Your task to perform on an android device: open sync settings in chrome Image 0: 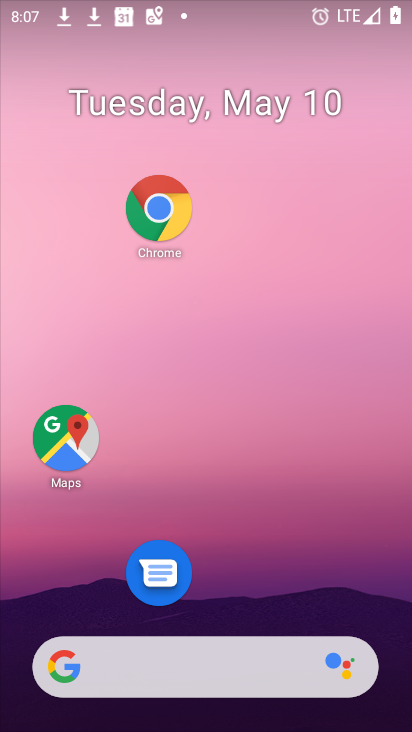
Step 0: drag from (318, 684) to (358, 213)
Your task to perform on an android device: open sync settings in chrome Image 1: 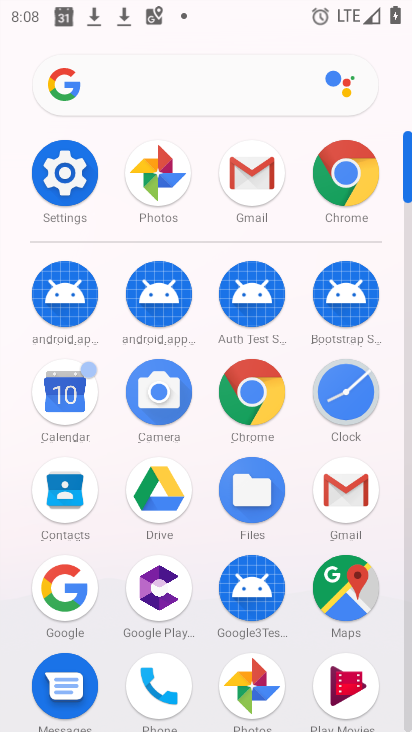
Step 1: click (347, 170)
Your task to perform on an android device: open sync settings in chrome Image 2: 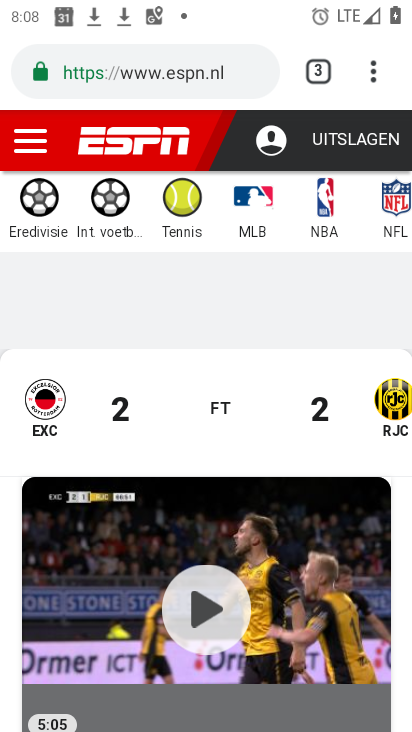
Step 2: click (366, 91)
Your task to perform on an android device: open sync settings in chrome Image 3: 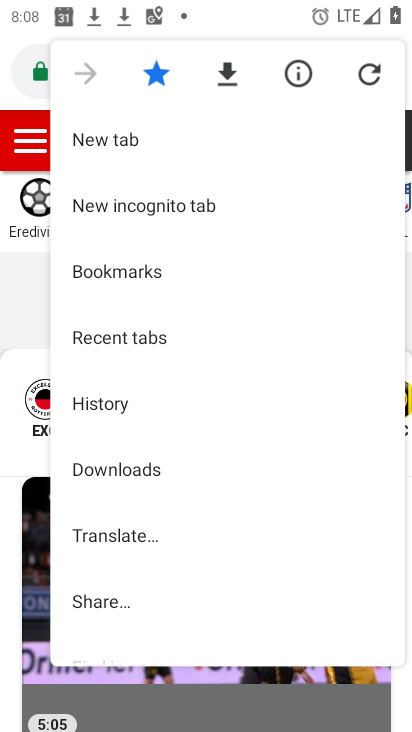
Step 3: drag from (175, 572) to (253, 357)
Your task to perform on an android device: open sync settings in chrome Image 4: 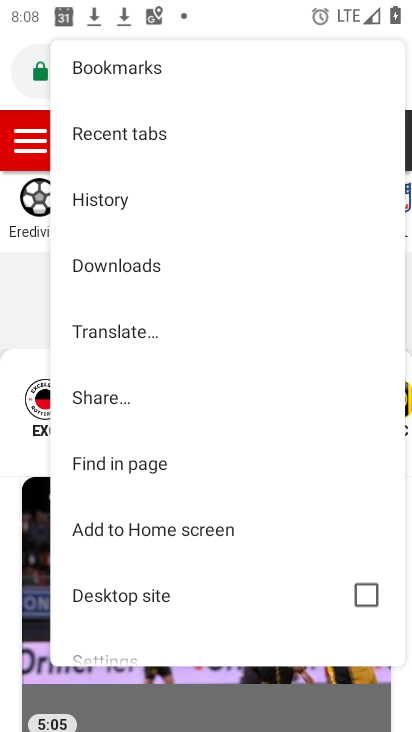
Step 4: drag from (169, 578) to (206, 481)
Your task to perform on an android device: open sync settings in chrome Image 5: 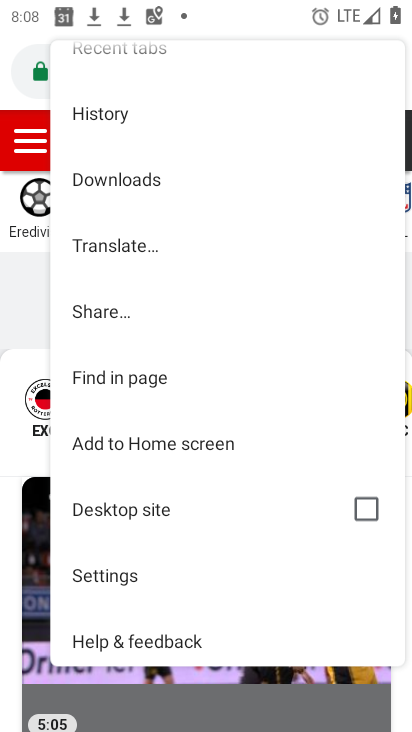
Step 5: click (139, 575)
Your task to perform on an android device: open sync settings in chrome Image 6: 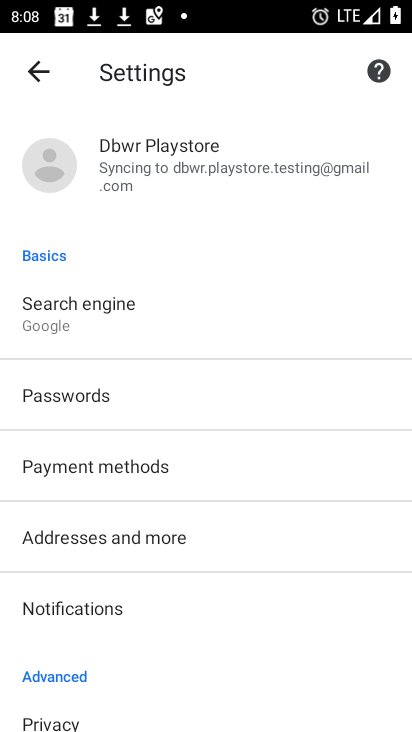
Step 6: drag from (179, 659) to (218, 397)
Your task to perform on an android device: open sync settings in chrome Image 7: 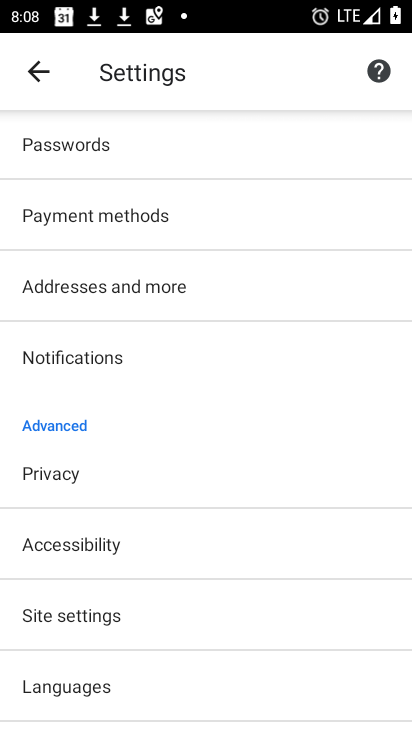
Step 7: click (81, 611)
Your task to perform on an android device: open sync settings in chrome Image 8: 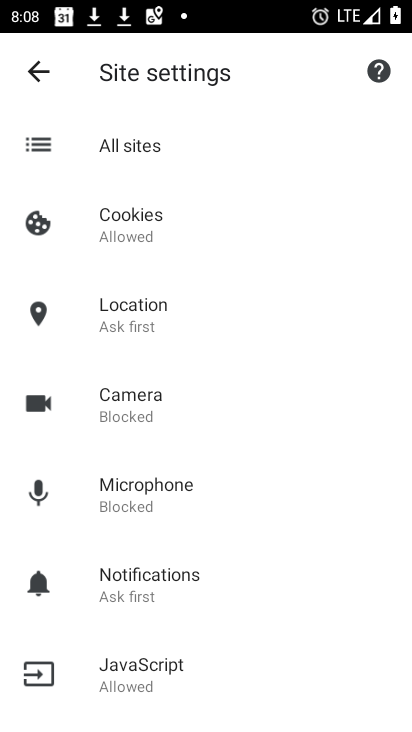
Step 8: drag from (126, 673) to (205, 505)
Your task to perform on an android device: open sync settings in chrome Image 9: 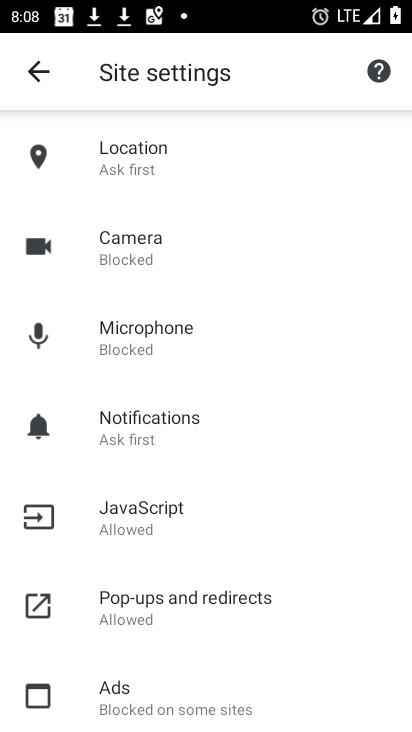
Step 9: drag from (128, 670) to (198, 546)
Your task to perform on an android device: open sync settings in chrome Image 10: 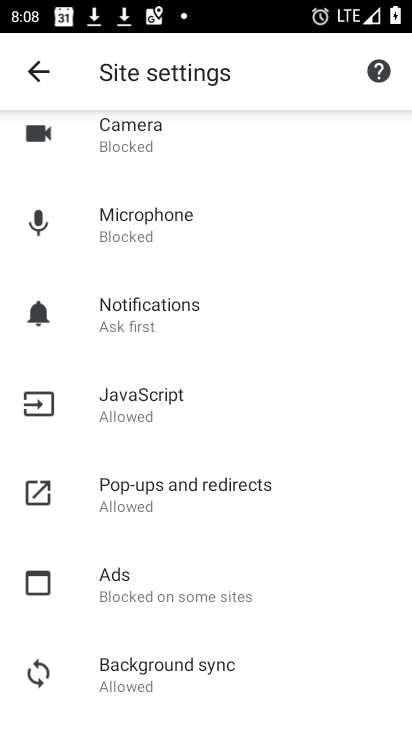
Step 10: click (147, 667)
Your task to perform on an android device: open sync settings in chrome Image 11: 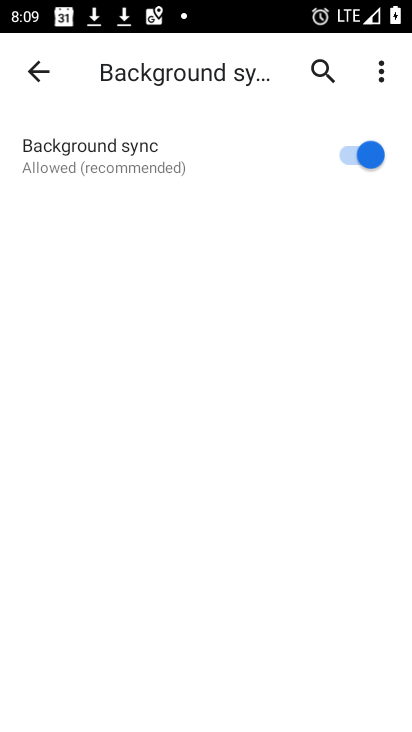
Step 11: click (346, 156)
Your task to perform on an android device: open sync settings in chrome Image 12: 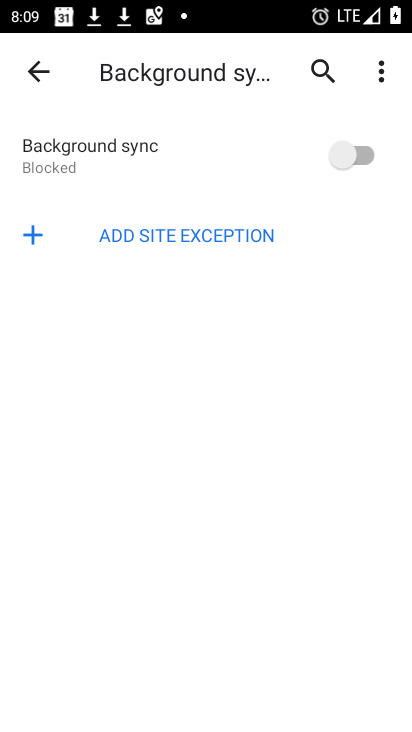
Step 12: click (346, 157)
Your task to perform on an android device: open sync settings in chrome Image 13: 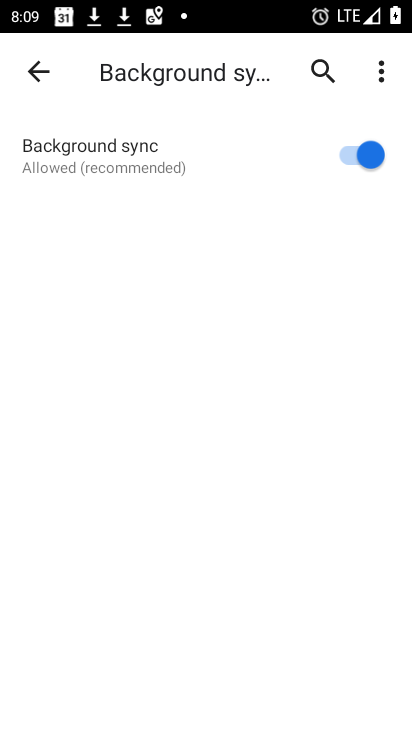
Step 13: task complete